Your task to perform on an android device: open sync settings in chrome Image 0: 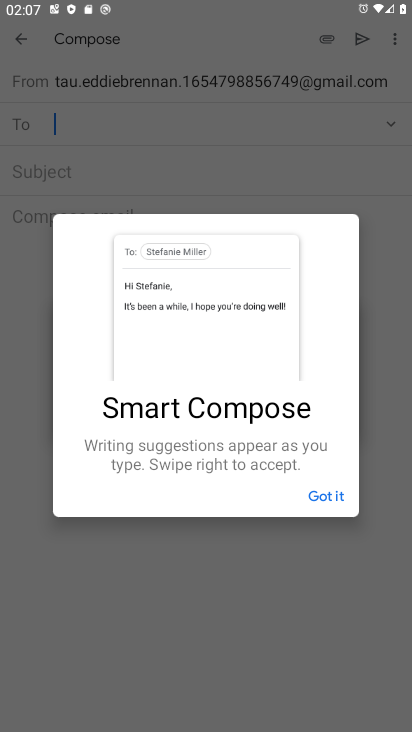
Step 0: press home button
Your task to perform on an android device: open sync settings in chrome Image 1: 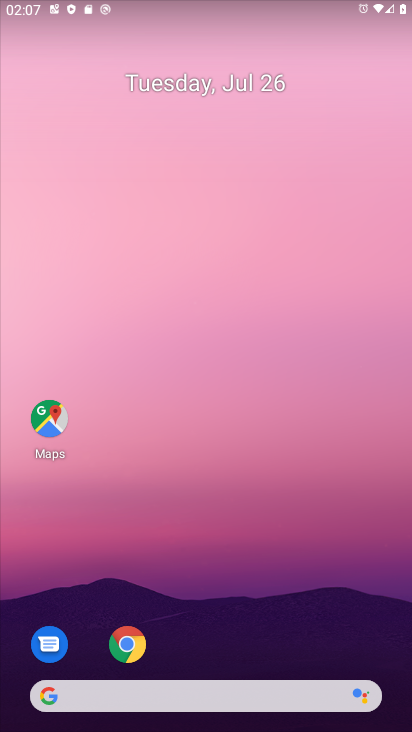
Step 1: drag from (340, 666) to (307, 254)
Your task to perform on an android device: open sync settings in chrome Image 2: 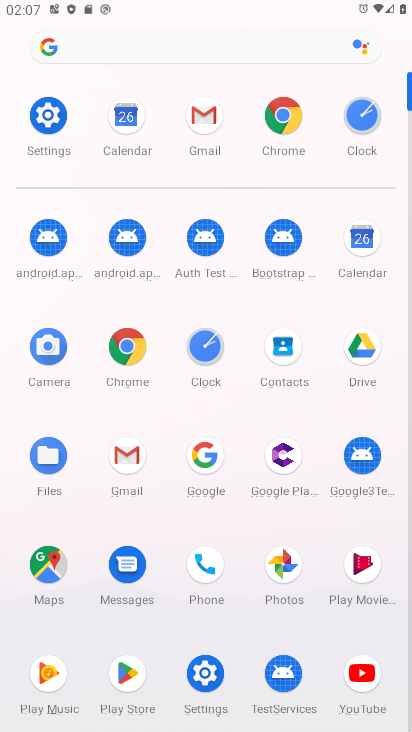
Step 2: click (296, 105)
Your task to perform on an android device: open sync settings in chrome Image 3: 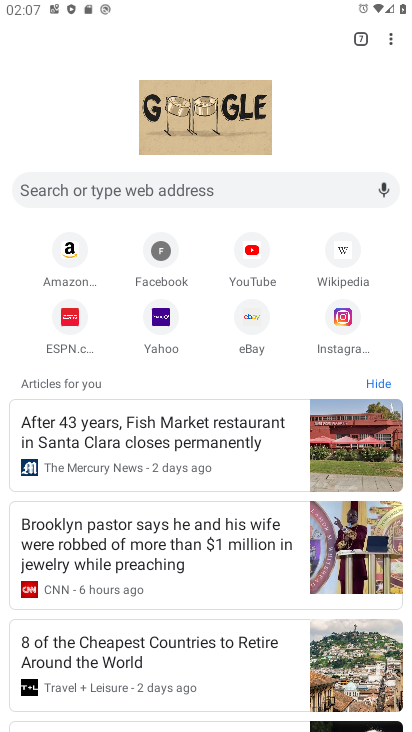
Step 3: click (388, 41)
Your task to perform on an android device: open sync settings in chrome Image 4: 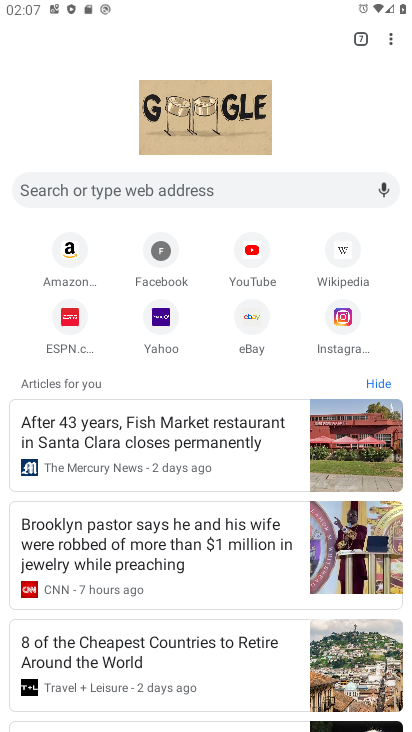
Step 4: click (391, 36)
Your task to perform on an android device: open sync settings in chrome Image 5: 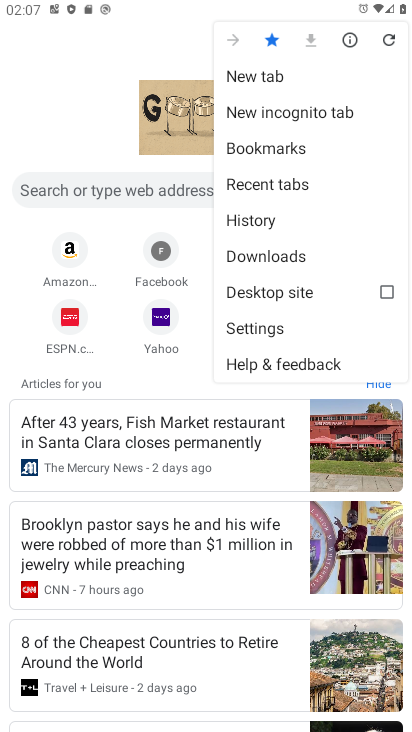
Step 5: click (263, 322)
Your task to perform on an android device: open sync settings in chrome Image 6: 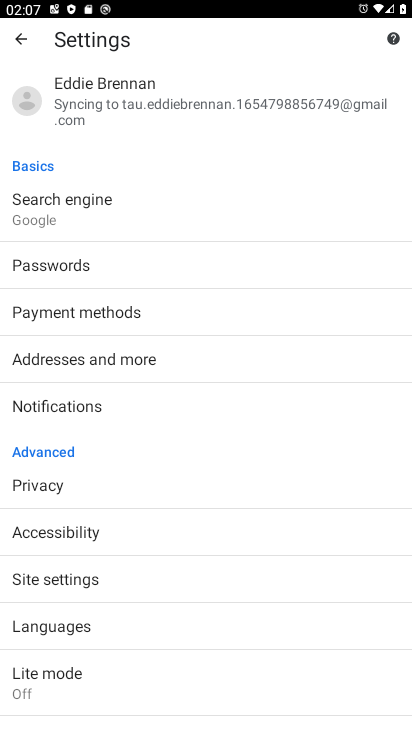
Step 6: click (105, 103)
Your task to perform on an android device: open sync settings in chrome Image 7: 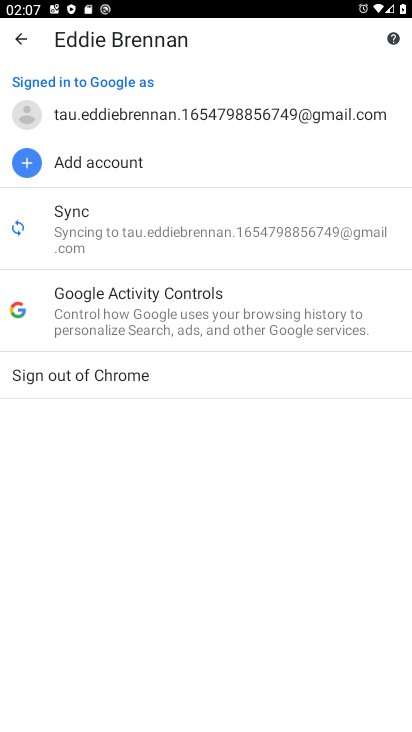
Step 7: click (131, 210)
Your task to perform on an android device: open sync settings in chrome Image 8: 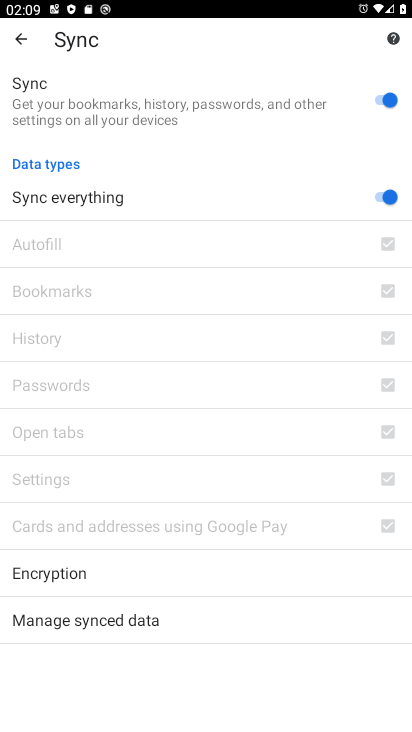
Step 8: task complete